Your task to perform on an android device: Go to settings Image 0: 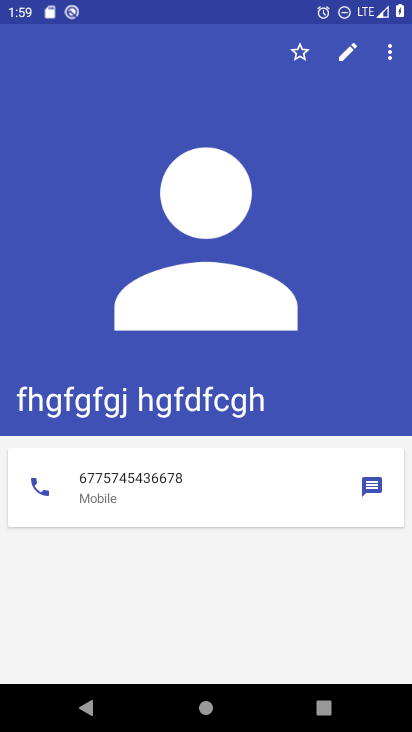
Step 0: press home button
Your task to perform on an android device: Go to settings Image 1: 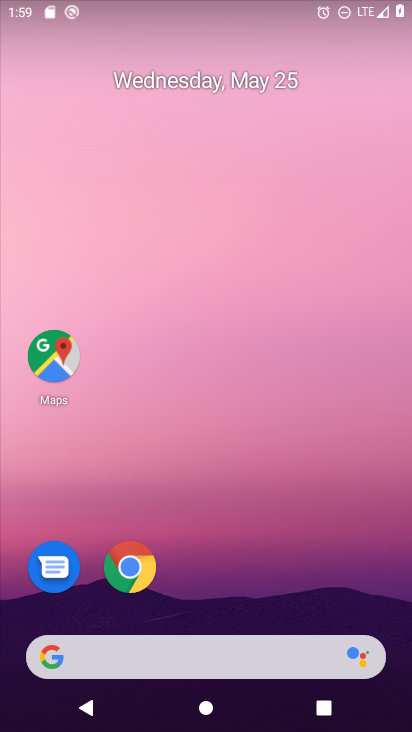
Step 1: drag from (398, 703) to (337, 194)
Your task to perform on an android device: Go to settings Image 2: 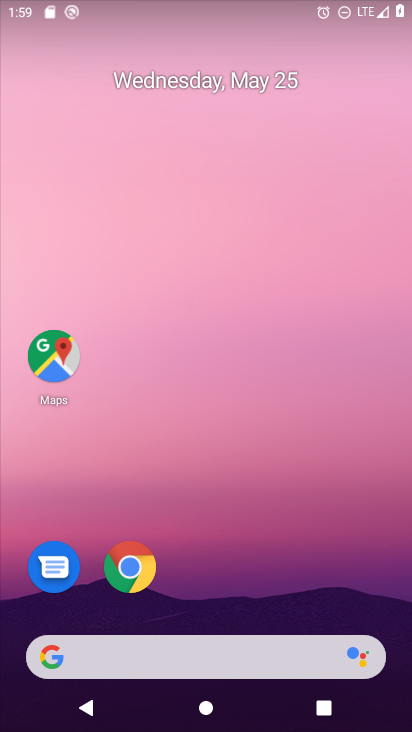
Step 2: drag from (397, 705) to (393, 131)
Your task to perform on an android device: Go to settings Image 3: 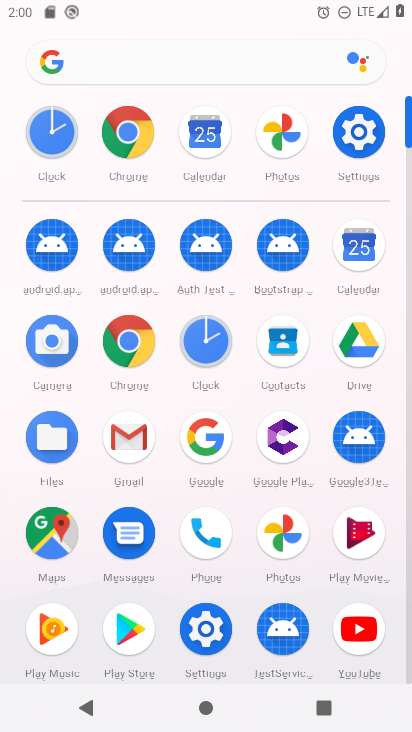
Step 3: click (198, 621)
Your task to perform on an android device: Go to settings Image 4: 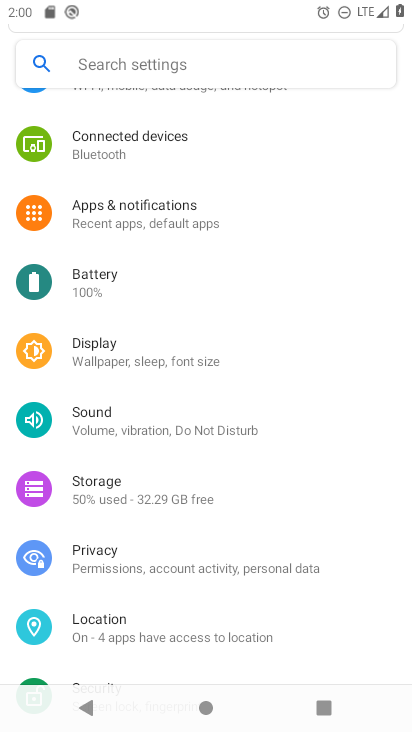
Step 4: task complete